Your task to perform on an android device: change keyboard looks Image 0: 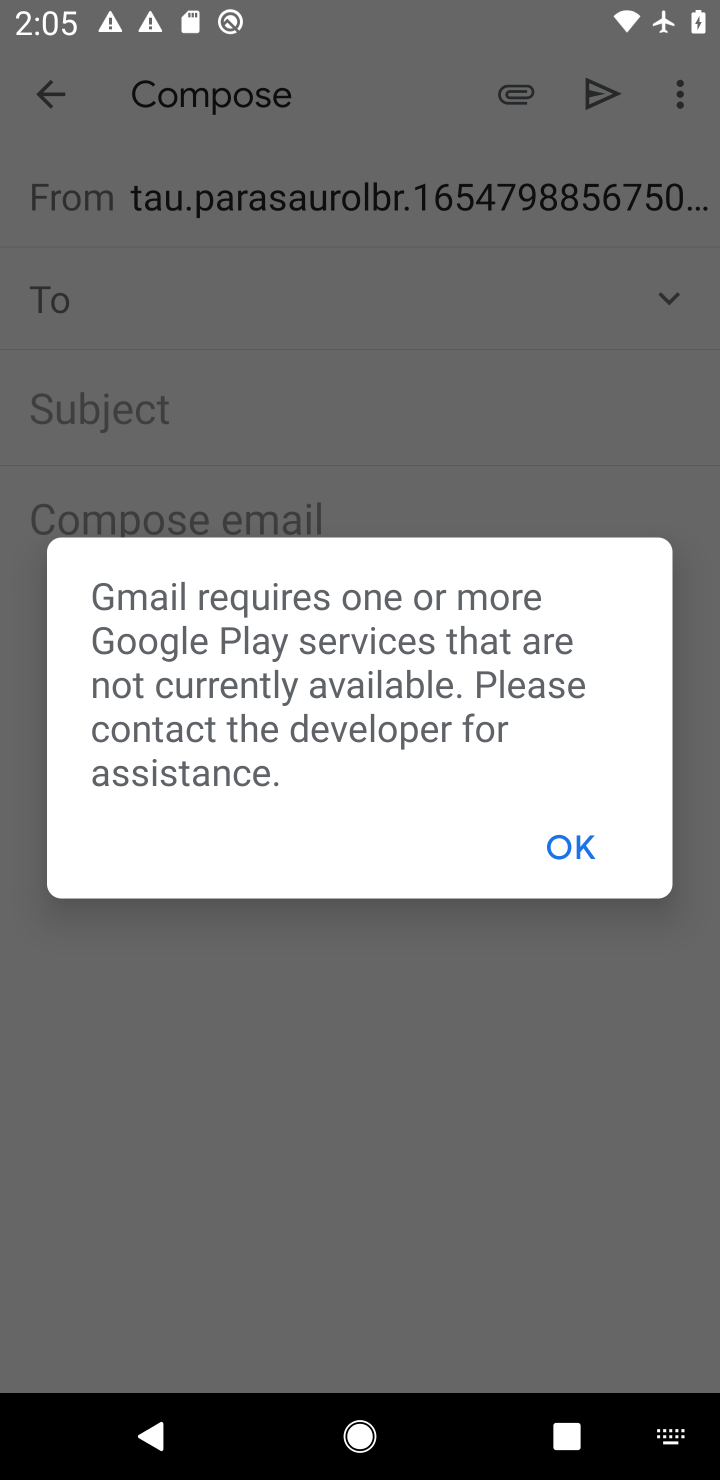
Step 0: press home button
Your task to perform on an android device: change keyboard looks Image 1: 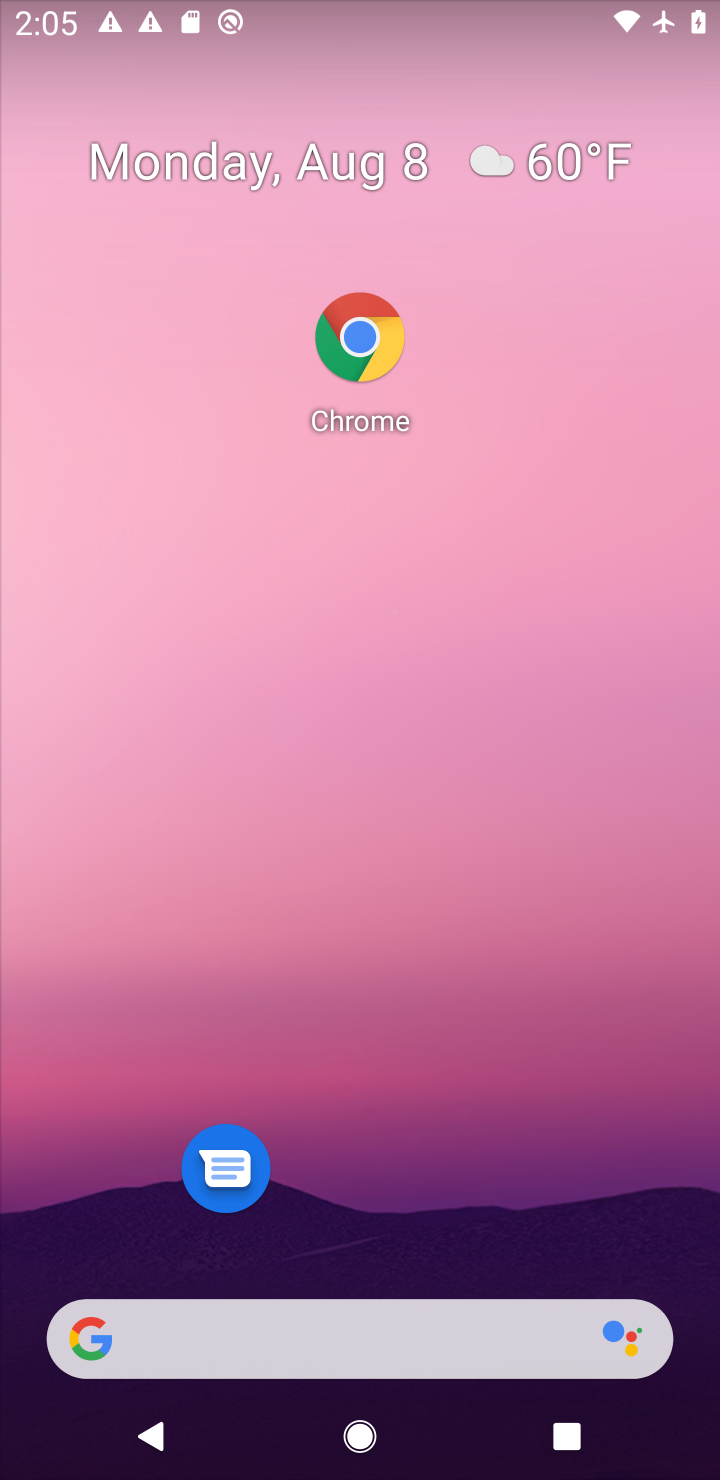
Step 1: drag from (497, 1242) to (514, 17)
Your task to perform on an android device: change keyboard looks Image 2: 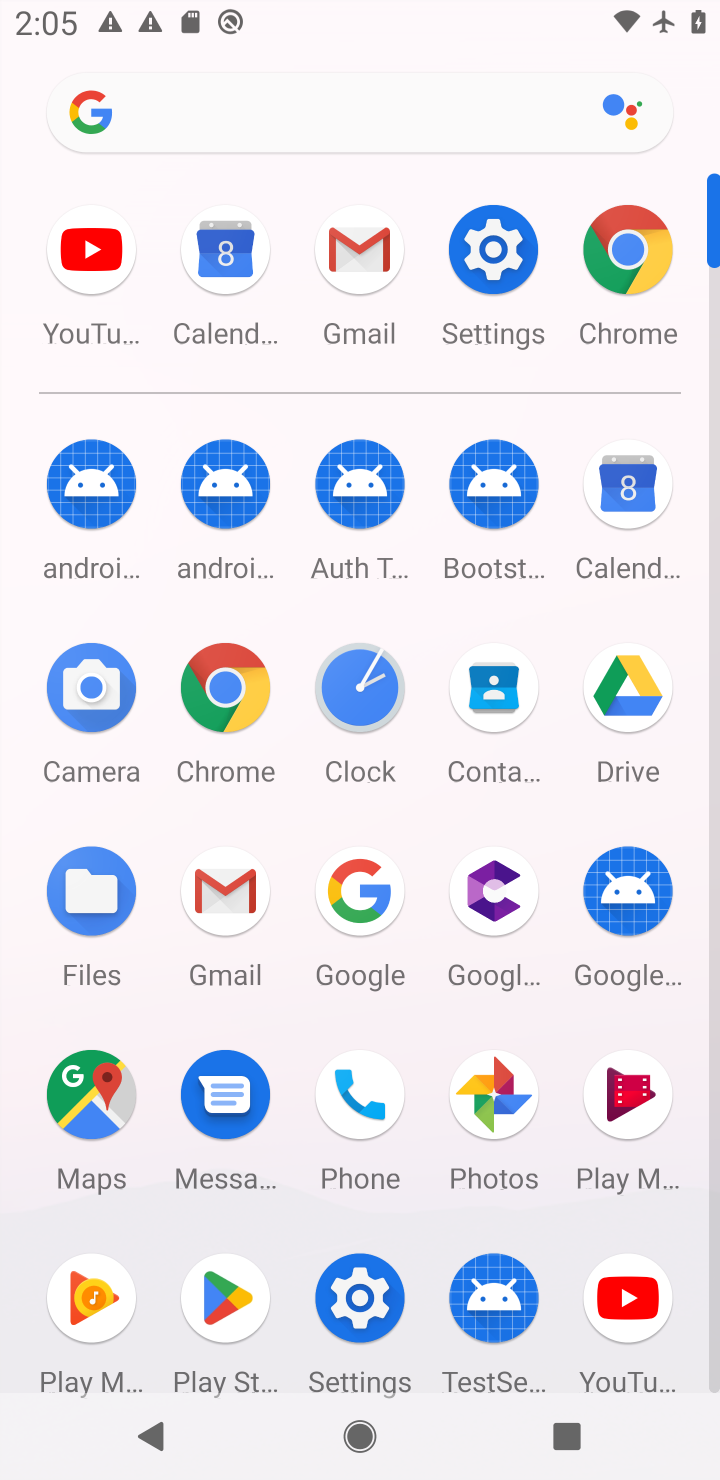
Step 2: click (489, 245)
Your task to perform on an android device: change keyboard looks Image 3: 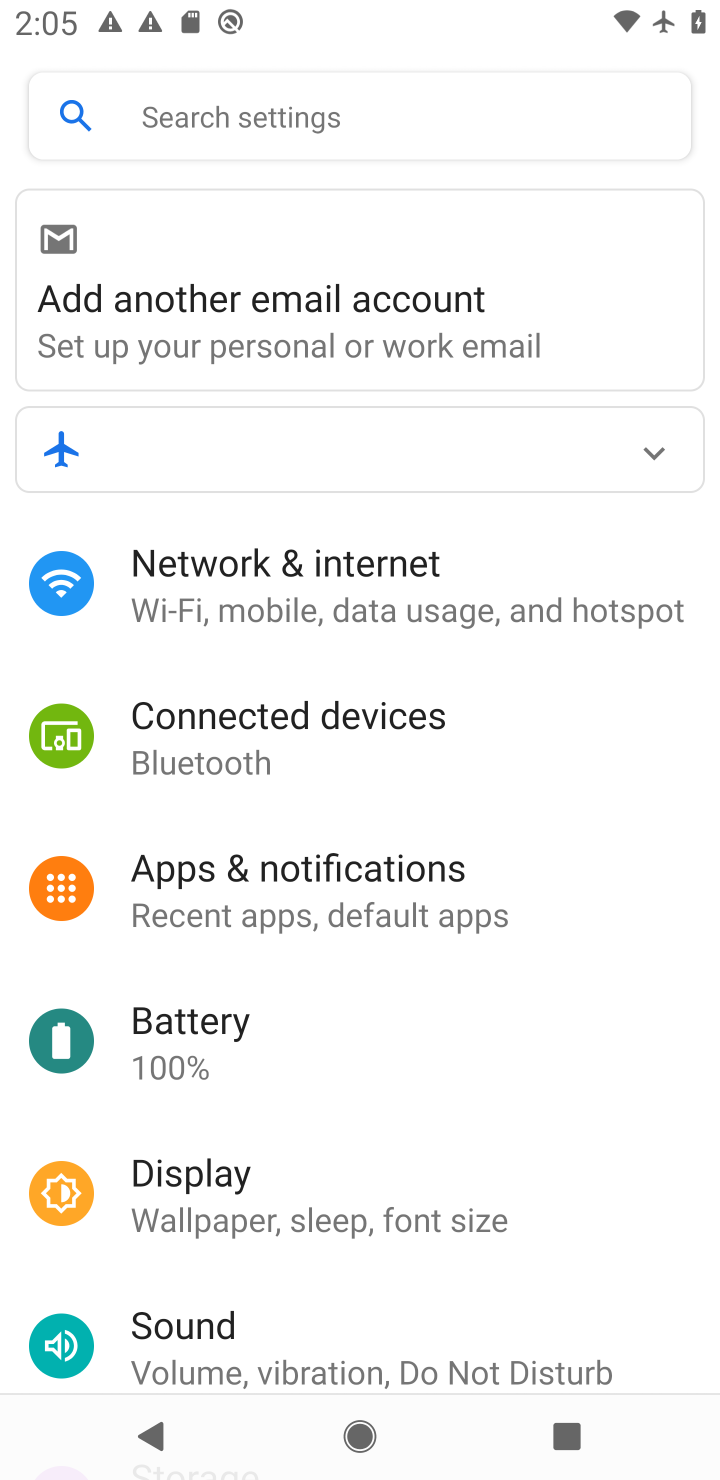
Step 3: drag from (471, 1274) to (418, 650)
Your task to perform on an android device: change keyboard looks Image 4: 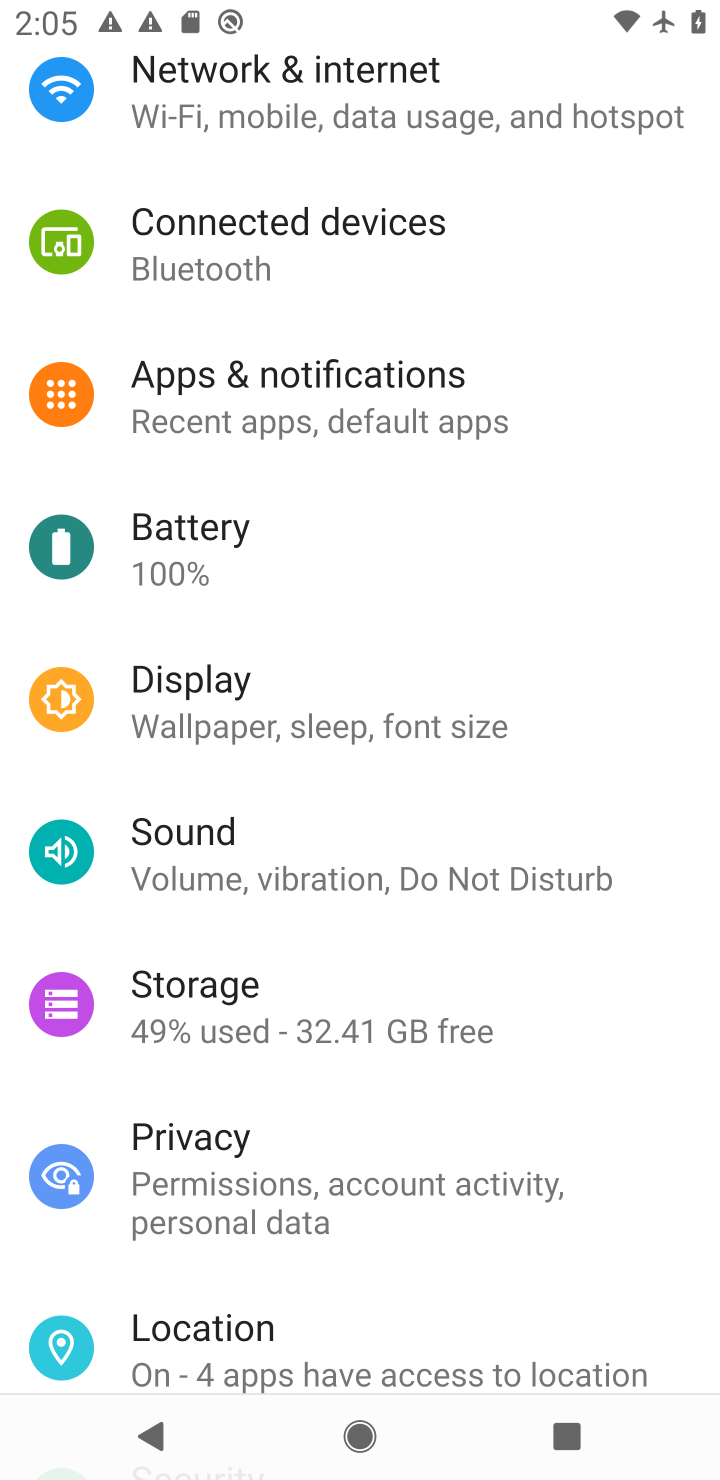
Step 4: drag from (414, 1129) to (360, 614)
Your task to perform on an android device: change keyboard looks Image 5: 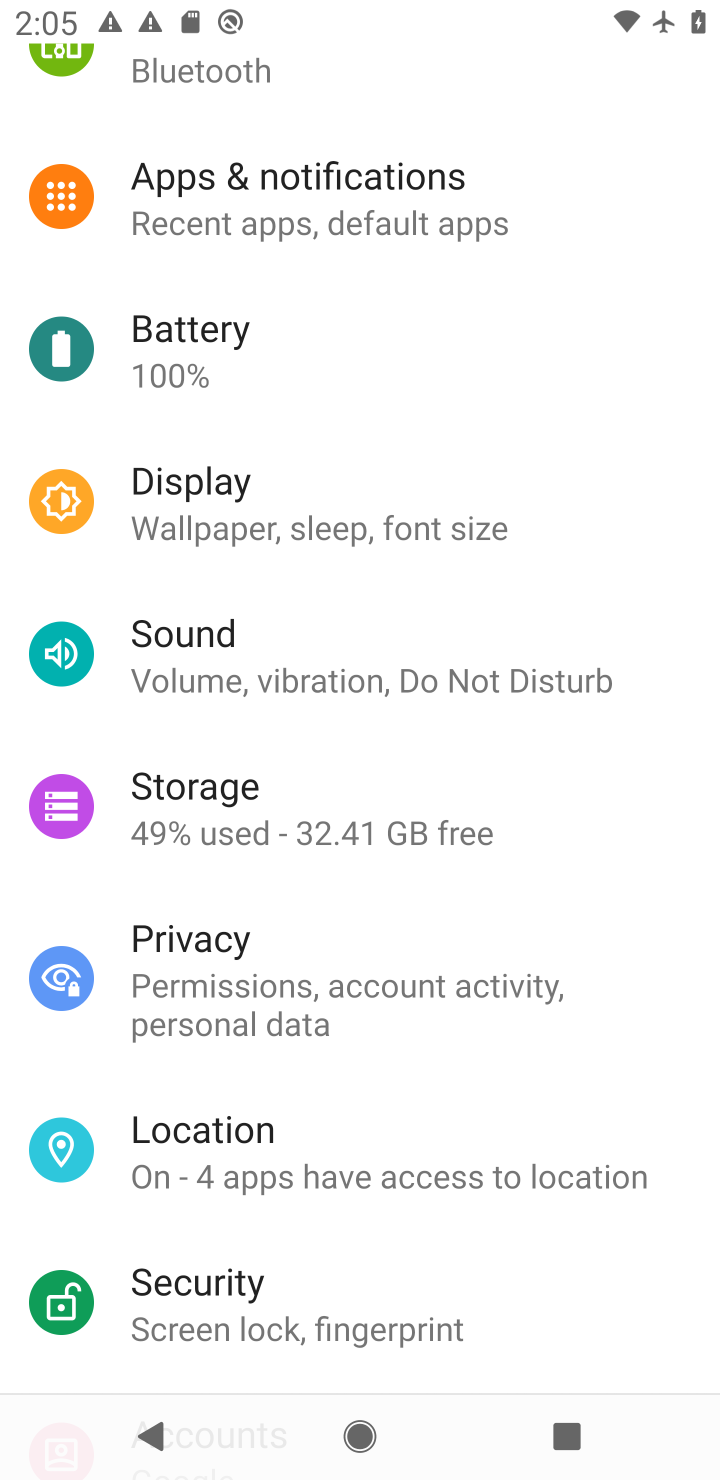
Step 5: drag from (438, 1221) to (393, 399)
Your task to perform on an android device: change keyboard looks Image 6: 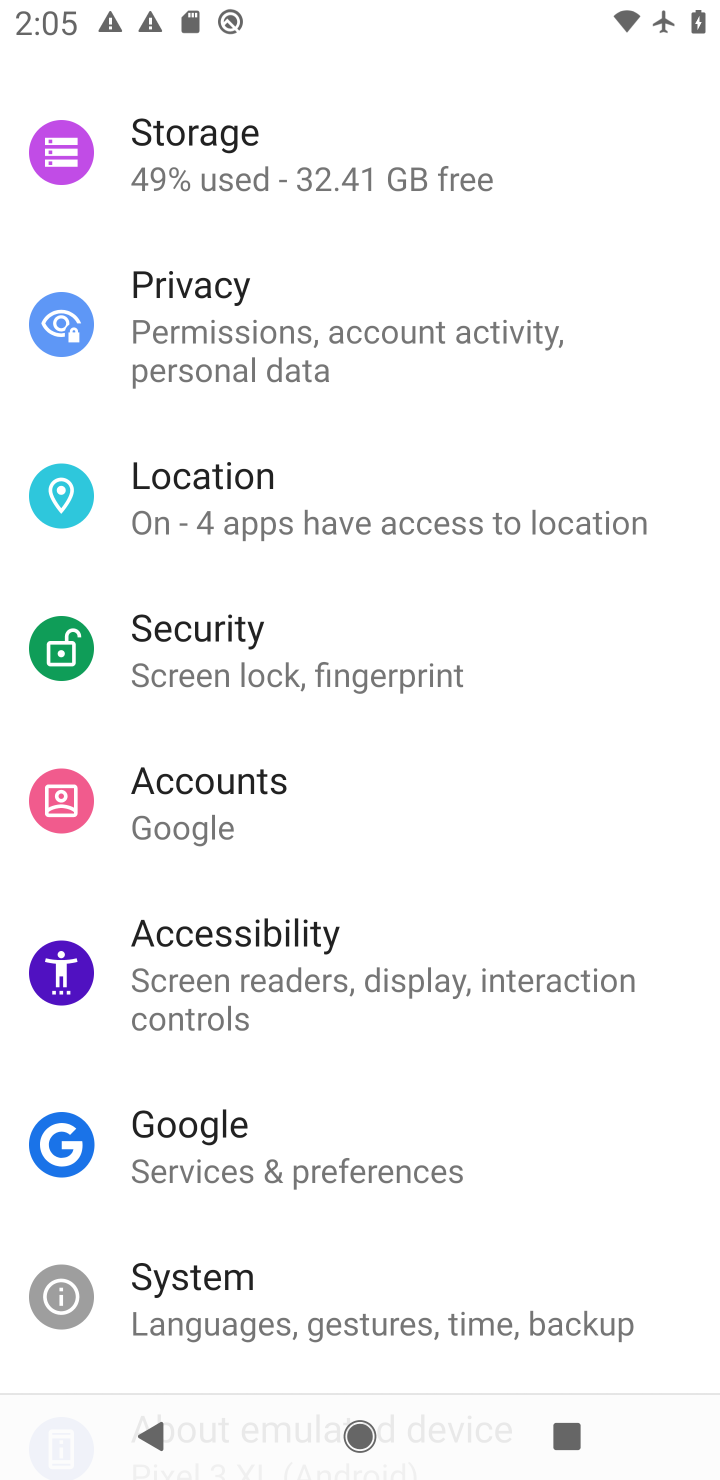
Step 6: drag from (510, 1335) to (485, 947)
Your task to perform on an android device: change keyboard looks Image 7: 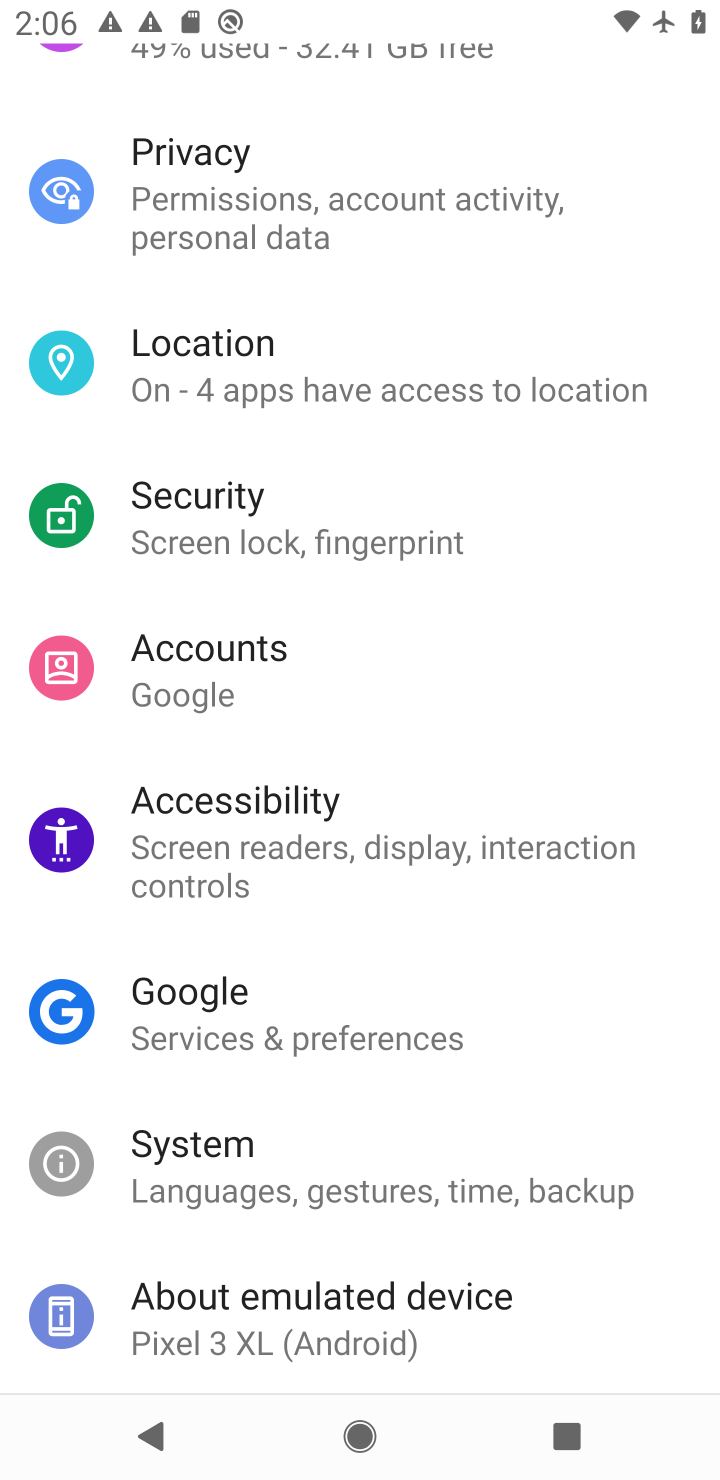
Step 7: click (329, 1155)
Your task to perform on an android device: change keyboard looks Image 8: 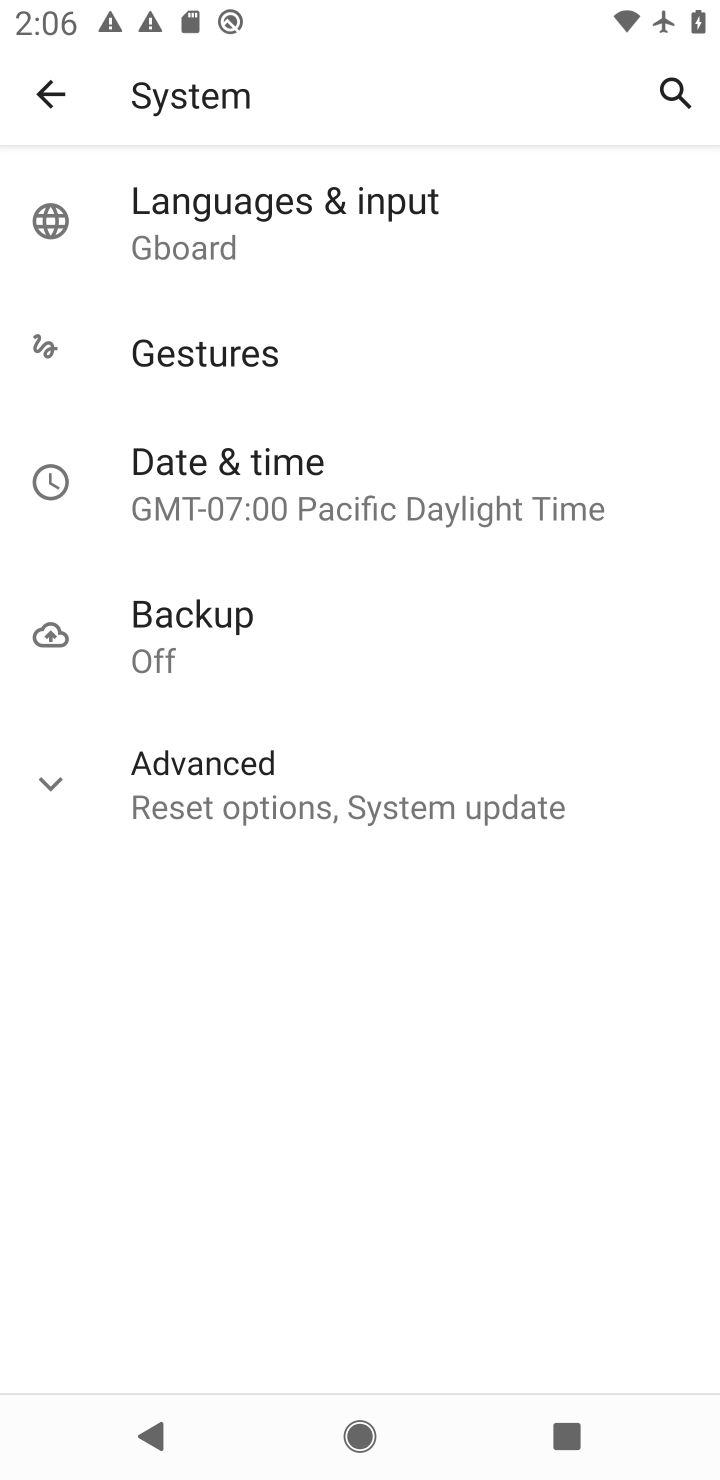
Step 8: task complete